Your task to perform on an android device: Open Chrome and go to the settings page Image 0: 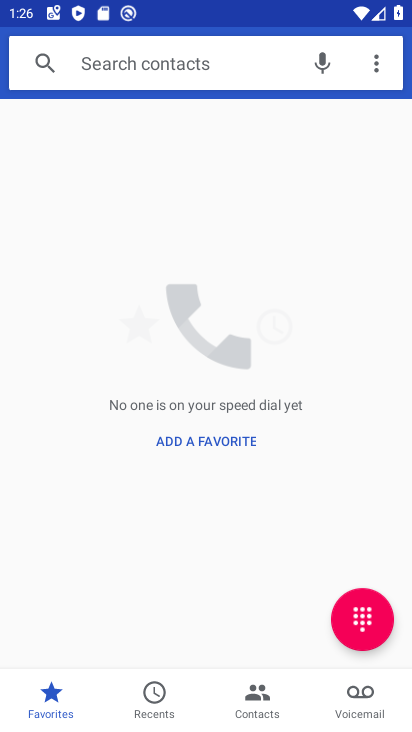
Step 0: press home button
Your task to perform on an android device: Open Chrome and go to the settings page Image 1: 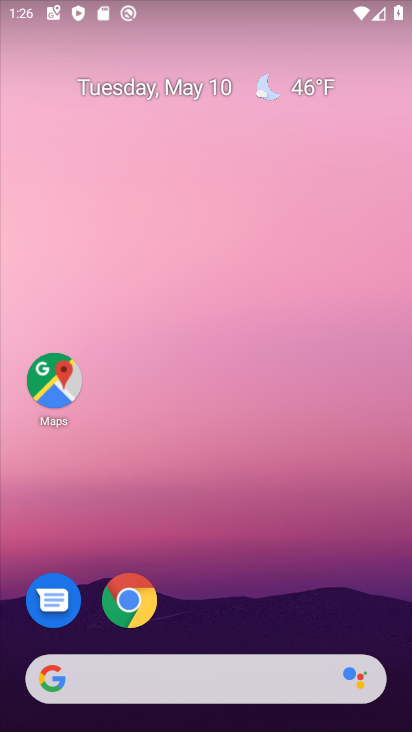
Step 1: click (129, 606)
Your task to perform on an android device: Open Chrome and go to the settings page Image 2: 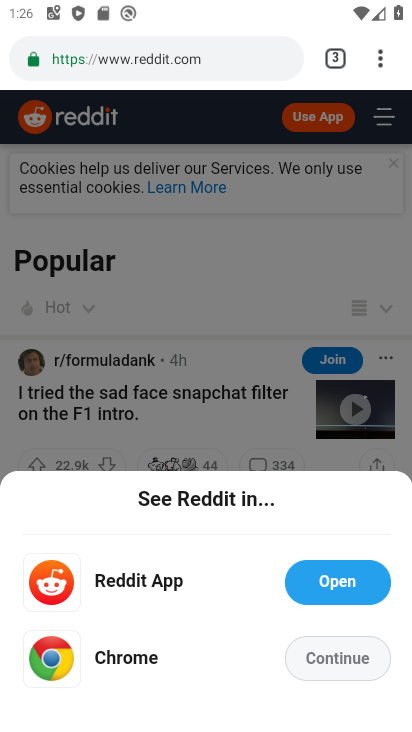
Step 2: task complete